Your task to perform on an android device: turn pop-ups off in chrome Image 0: 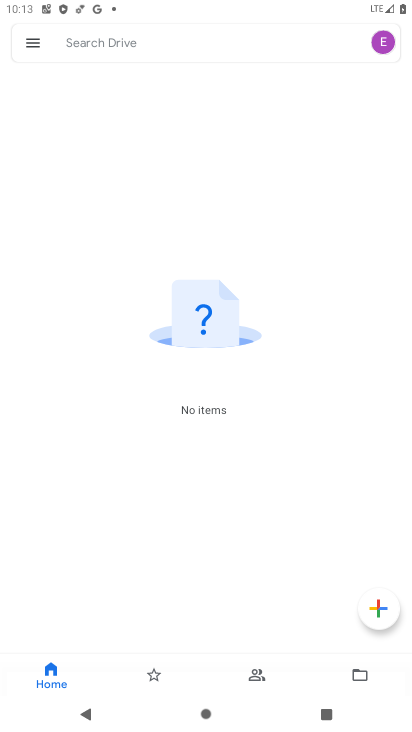
Step 0: press home button
Your task to perform on an android device: turn pop-ups off in chrome Image 1: 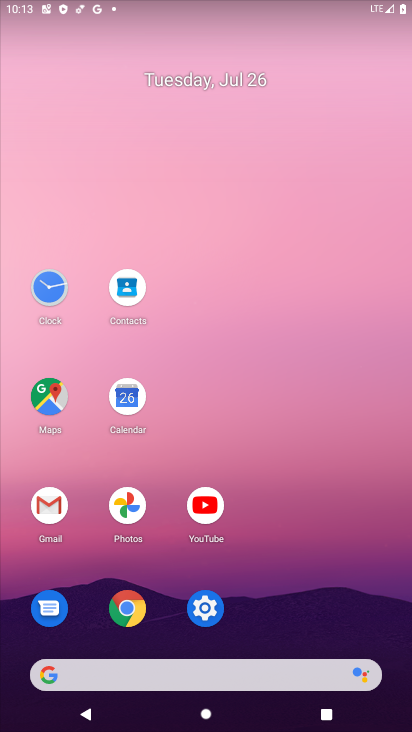
Step 1: click (123, 602)
Your task to perform on an android device: turn pop-ups off in chrome Image 2: 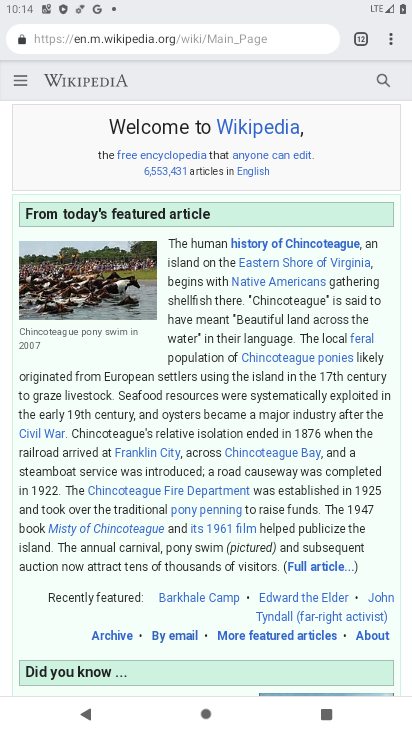
Step 2: click (387, 39)
Your task to perform on an android device: turn pop-ups off in chrome Image 3: 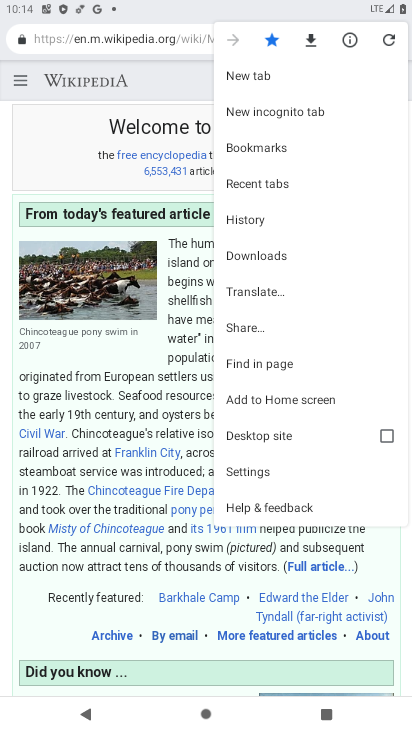
Step 3: click (251, 475)
Your task to perform on an android device: turn pop-ups off in chrome Image 4: 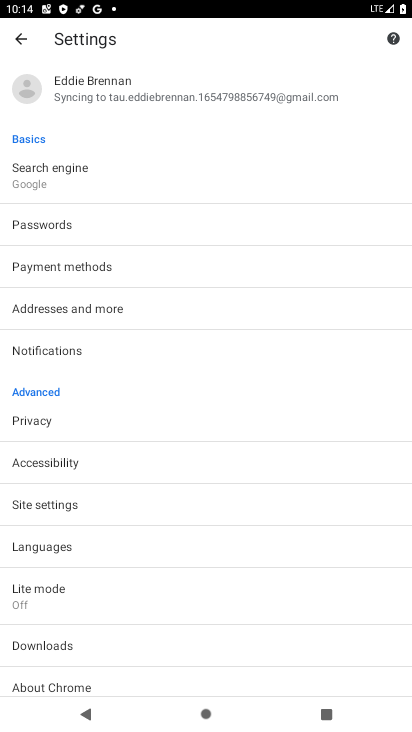
Step 4: click (37, 490)
Your task to perform on an android device: turn pop-ups off in chrome Image 5: 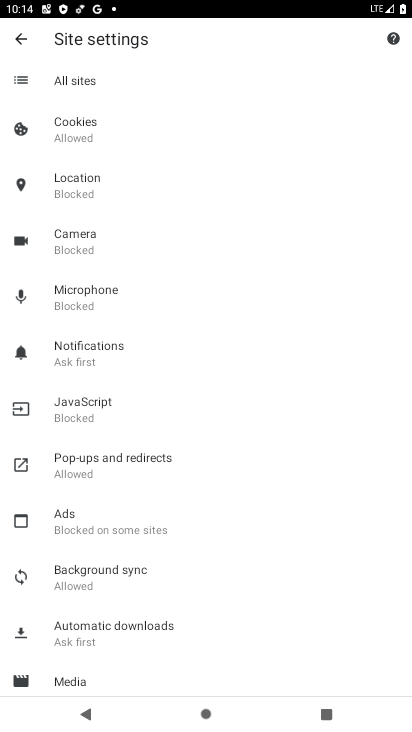
Step 5: click (120, 459)
Your task to perform on an android device: turn pop-ups off in chrome Image 6: 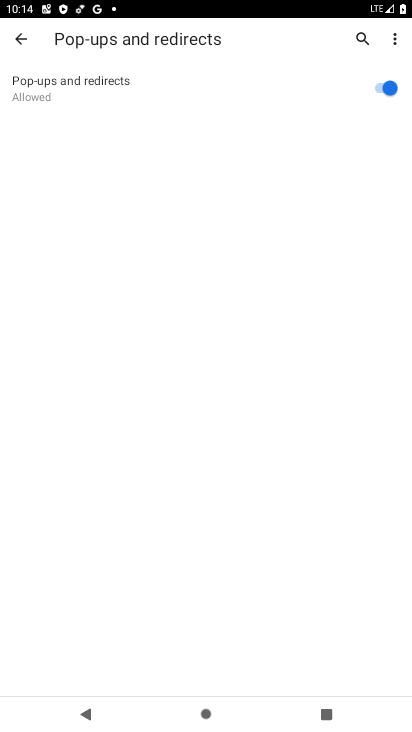
Step 6: click (391, 84)
Your task to perform on an android device: turn pop-ups off in chrome Image 7: 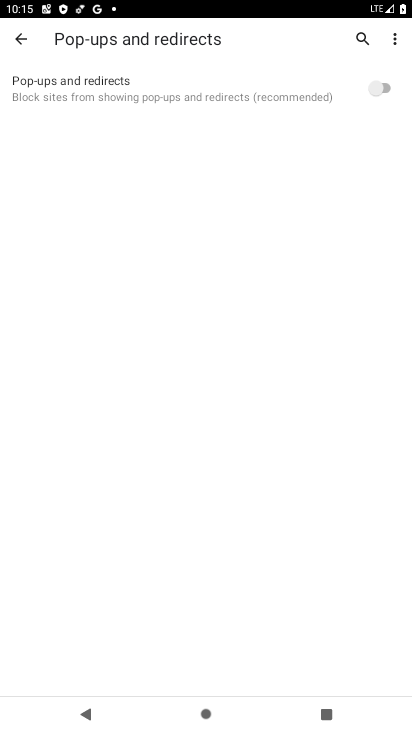
Step 7: task complete